Your task to perform on an android device: Open calendar and show me the second week of next month Image 0: 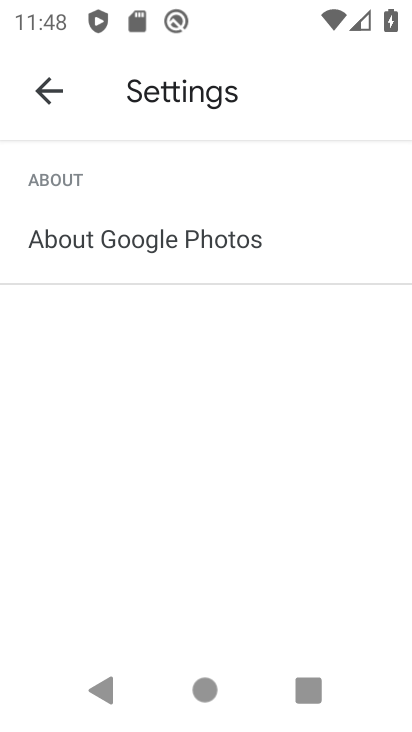
Step 0: press home button
Your task to perform on an android device: Open calendar and show me the second week of next month Image 1: 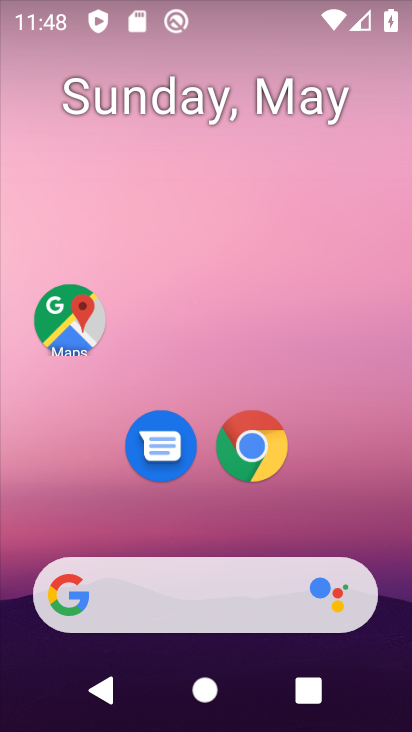
Step 1: drag from (247, 485) to (363, 7)
Your task to perform on an android device: Open calendar and show me the second week of next month Image 2: 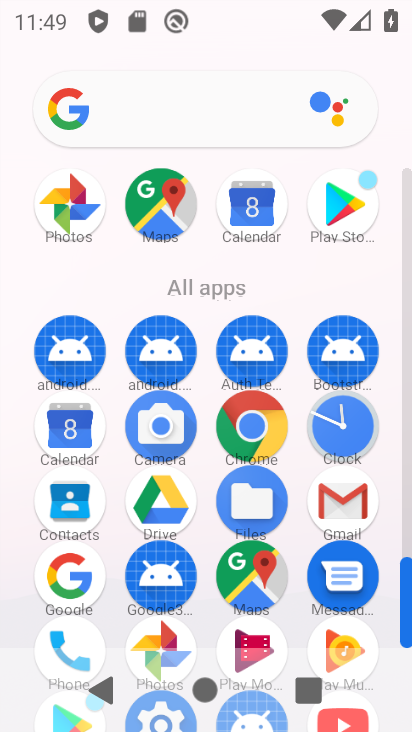
Step 2: click (65, 433)
Your task to perform on an android device: Open calendar and show me the second week of next month Image 3: 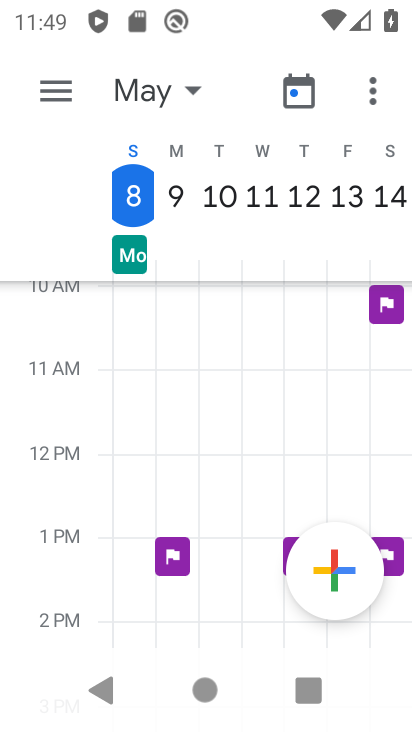
Step 3: click (181, 83)
Your task to perform on an android device: Open calendar and show me the second week of next month Image 4: 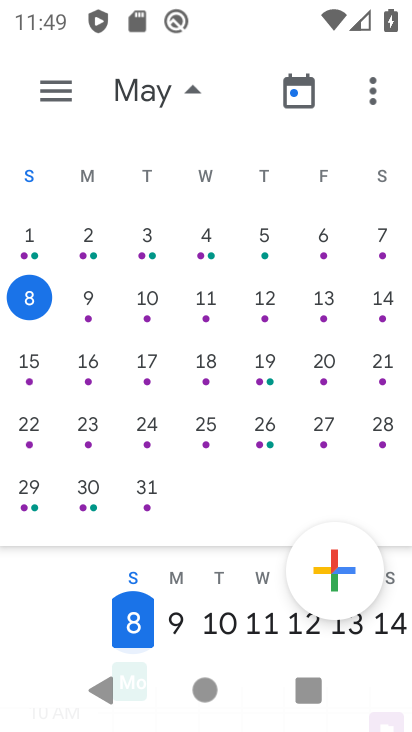
Step 4: drag from (169, 641) to (182, 587)
Your task to perform on an android device: Open calendar and show me the second week of next month Image 5: 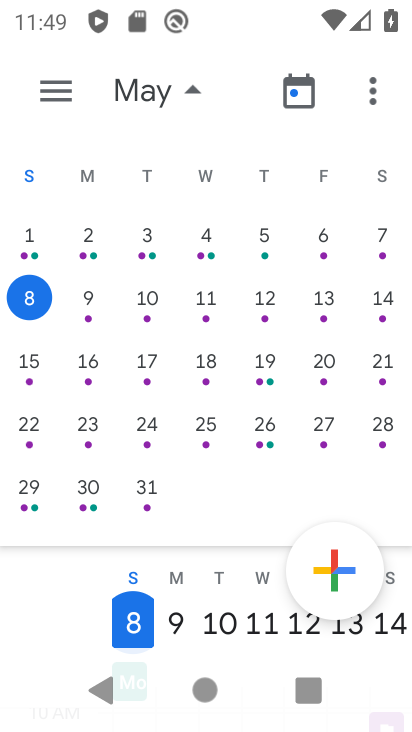
Step 5: drag from (197, 618) to (304, 320)
Your task to perform on an android device: Open calendar and show me the second week of next month Image 6: 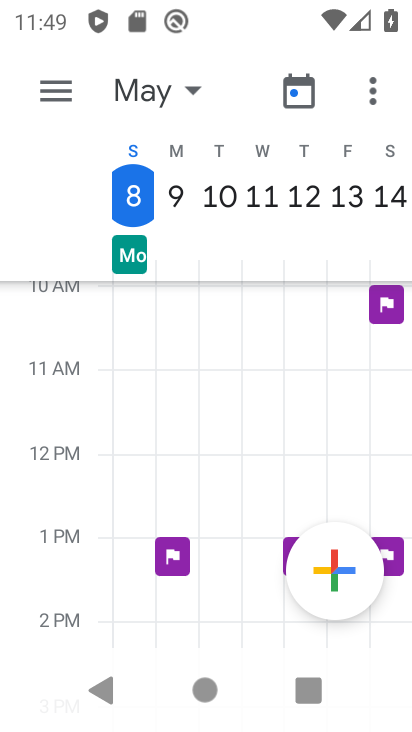
Step 6: click (169, 95)
Your task to perform on an android device: Open calendar and show me the second week of next month Image 7: 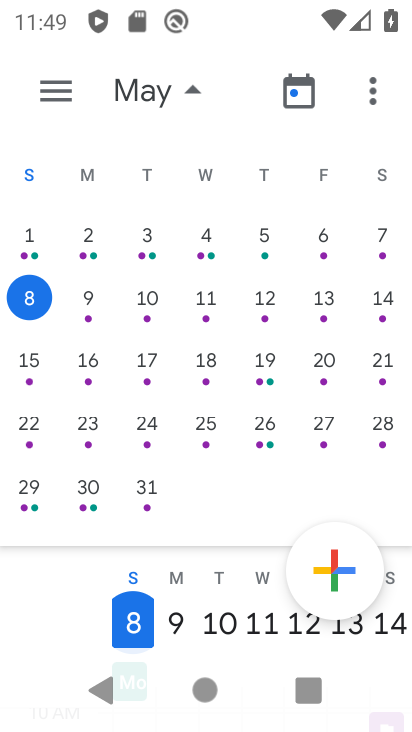
Step 7: click (170, 94)
Your task to perform on an android device: Open calendar and show me the second week of next month Image 8: 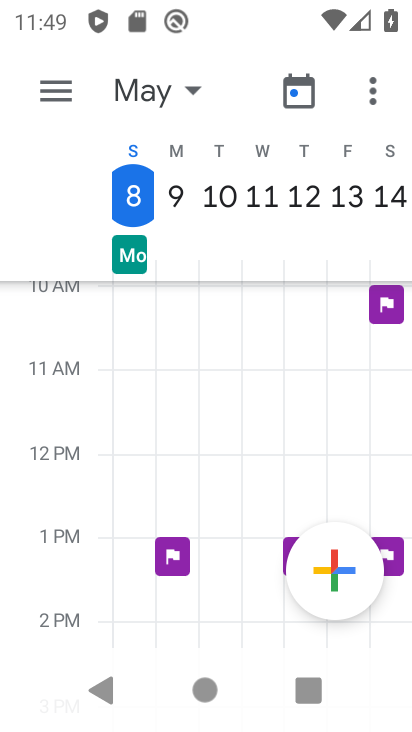
Step 8: click (298, 81)
Your task to perform on an android device: Open calendar and show me the second week of next month Image 9: 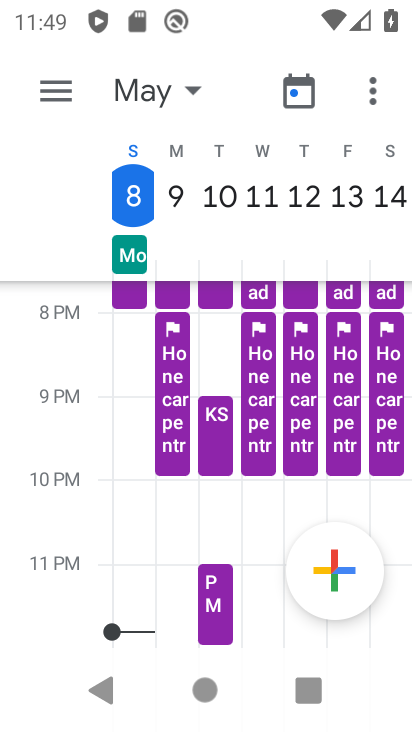
Step 9: click (68, 84)
Your task to perform on an android device: Open calendar and show me the second week of next month Image 10: 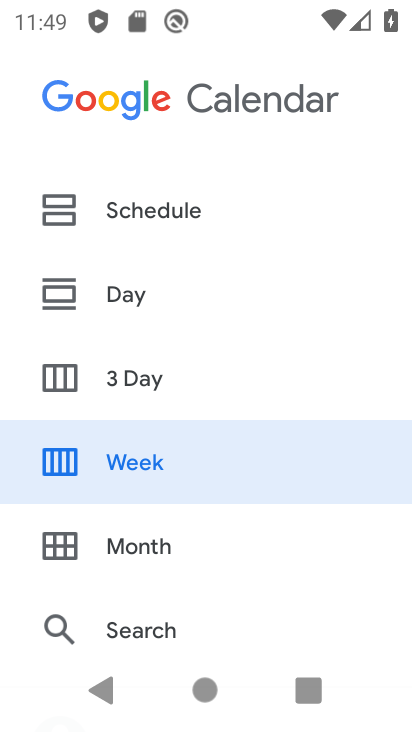
Step 10: click (48, 529)
Your task to perform on an android device: Open calendar and show me the second week of next month Image 11: 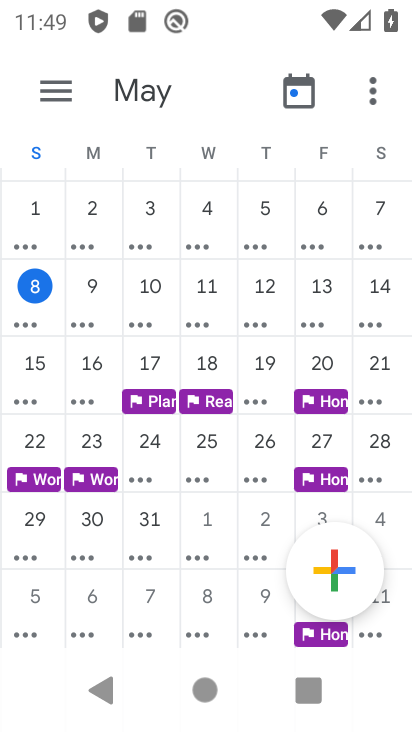
Step 11: drag from (87, 503) to (248, 243)
Your task to perform on an android device: Open calendar and show me the second week of next month Image 12: 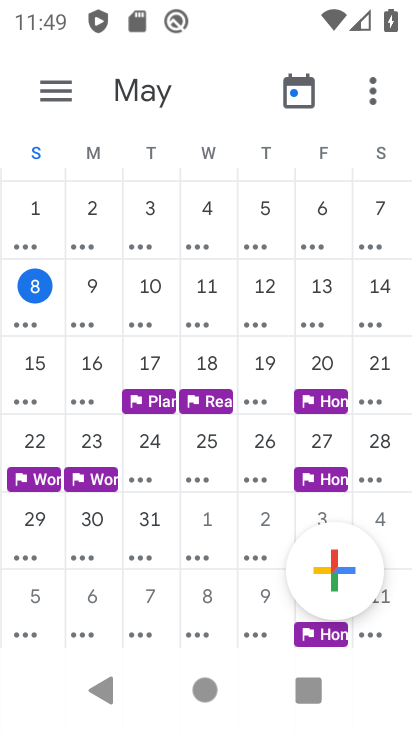
Step 12: drag from (313, 320) to (5, 299)
Your task to perform on an android device: Open calendar and show me the second week of next month Image 13: 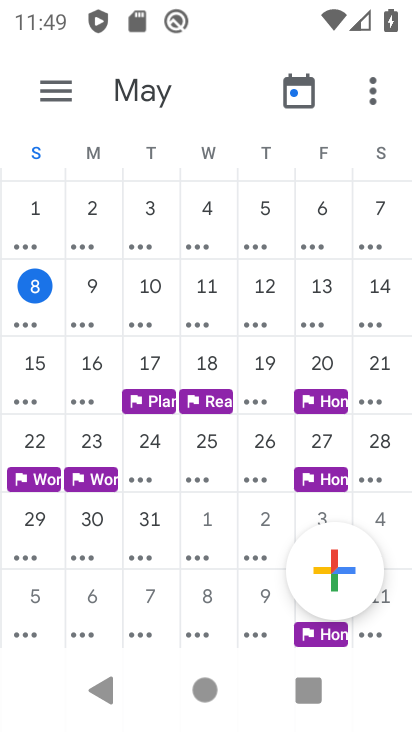
Step 13: drag from (361, 212) to (6, 214)
Your task to perform on an android device: Open calendar and show me the second week of next month Image 14: 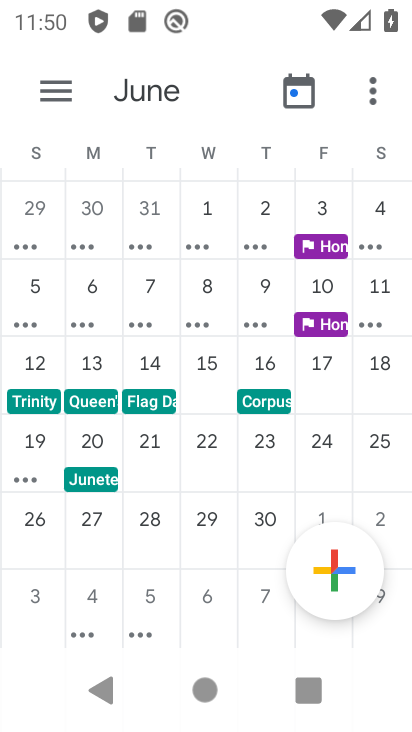
Step 14: click (42, 90)
Your task to perform on an android device: Open calendar and show me the second week of next month Image 15: 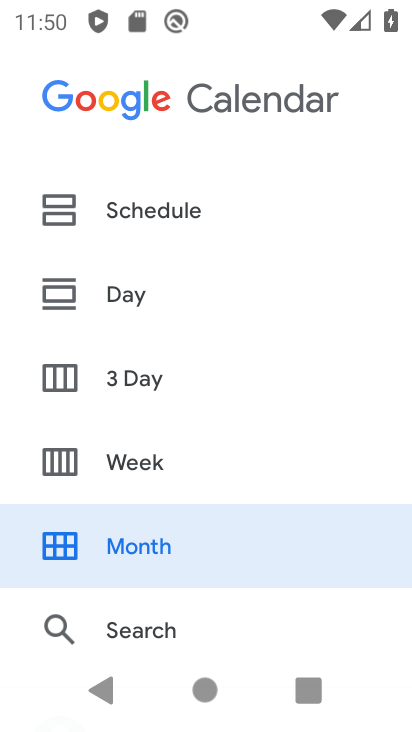
Step 15: click (87, 459)
Your task to perform on an android device: Open calendar and show me the second week of next month Image 16: 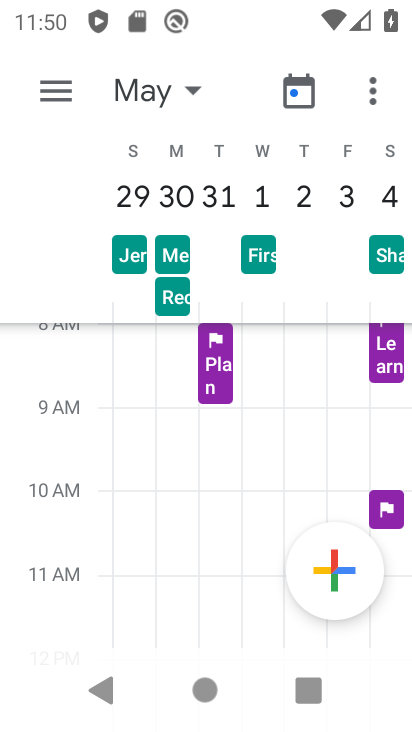
Step 16: drag from (318, 272) to (119, 275)
Your task to perform on an android device: Open calendar and show me the second week of next month Image 17: 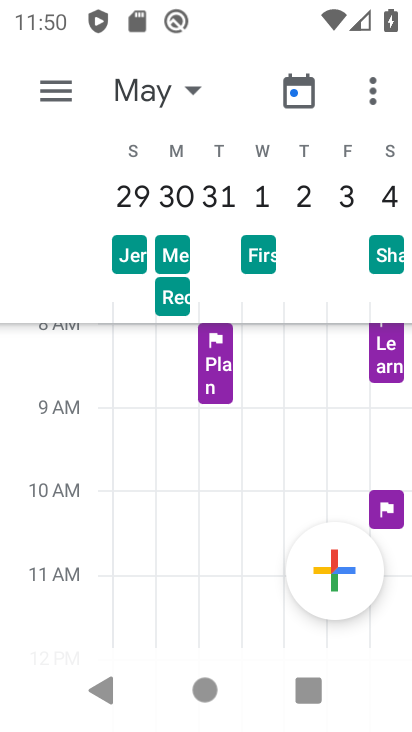
Step 17: click (198, 79)
Your task to perform on an android device: Open calendar and show me the second week of next month Image 18: 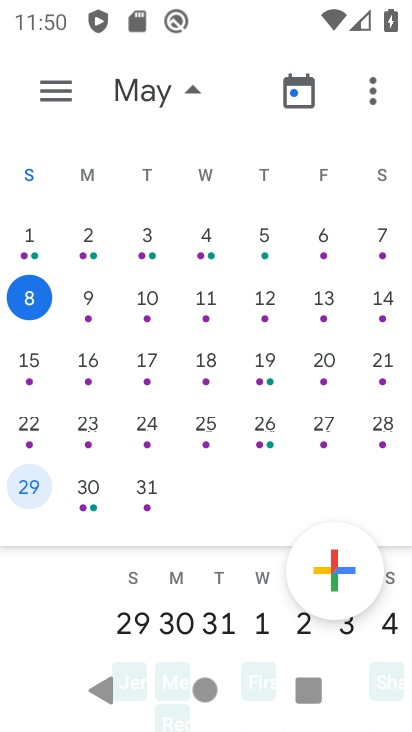
Step 18: click (187, 90)
Your task to perform on an android device: Open calendar and show me the second week of next month Image 19: 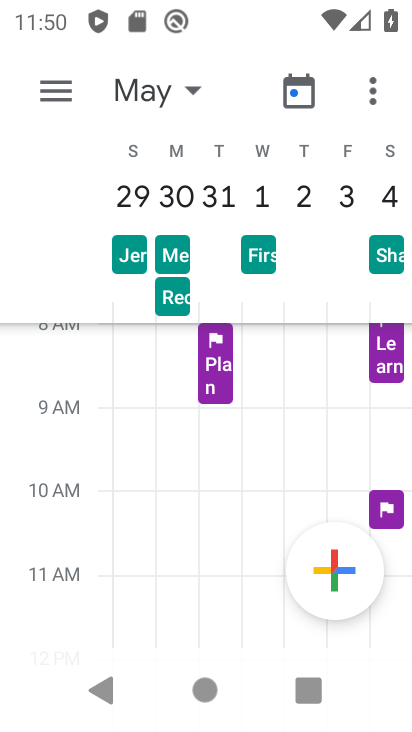
Step 19: drag from (344, 168) to (40, 235)
Your task to perform on an android device: Open calendar and show me the second week of next month Image 20: 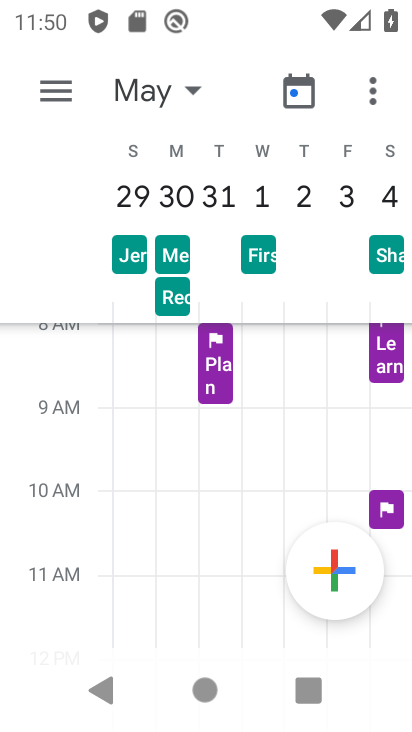
Step 20: drag from (337, 163) to (43, 211)
Your task to perform on an android device: Open calendar and show me the second week of next month Image 21: 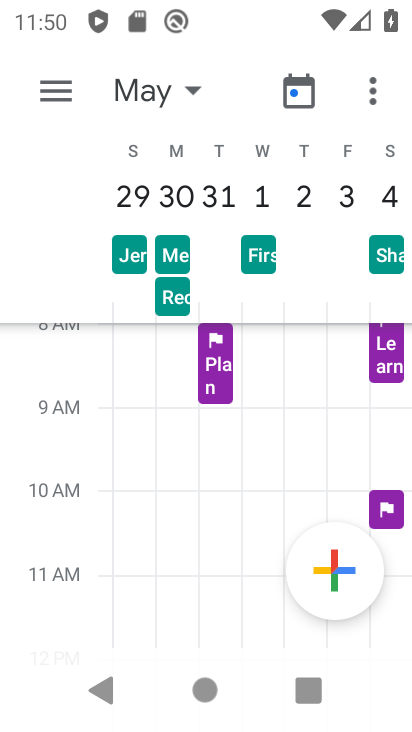
Step 21: drag from (354, 150) to (105, 167)
Your task to perform on an android device: Open calendar and show me the second week of next month Image 22: 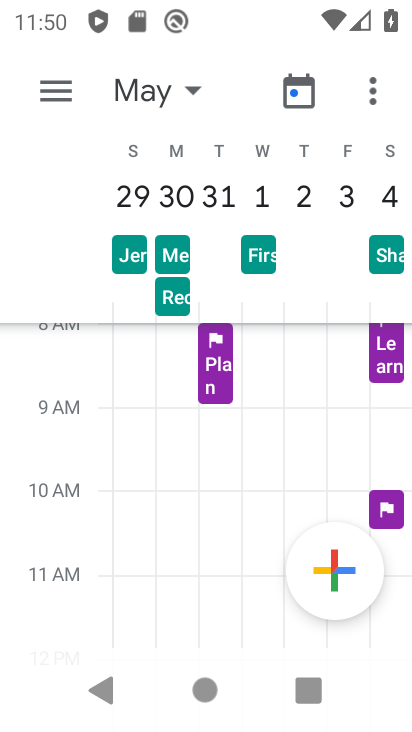
Step 22: drag from (381, 215) to (59, 233)
Your task to perform on an android device: Open calendar and show me the second week of next month Image 23: 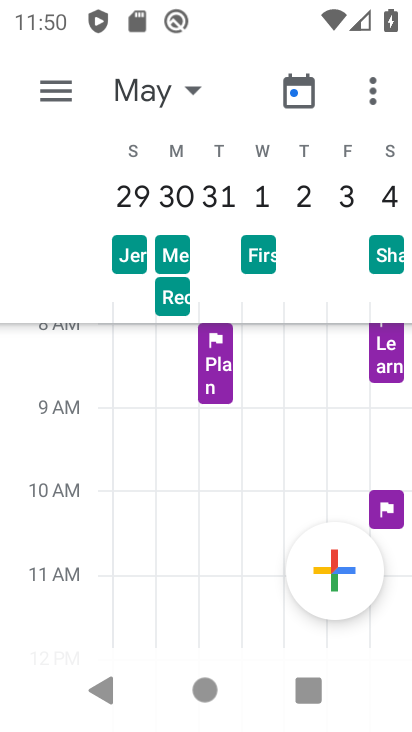
Step 23: click (132, 92)
Your task to perform on an android device: Open calendar and show me the second week of next month Image 24: 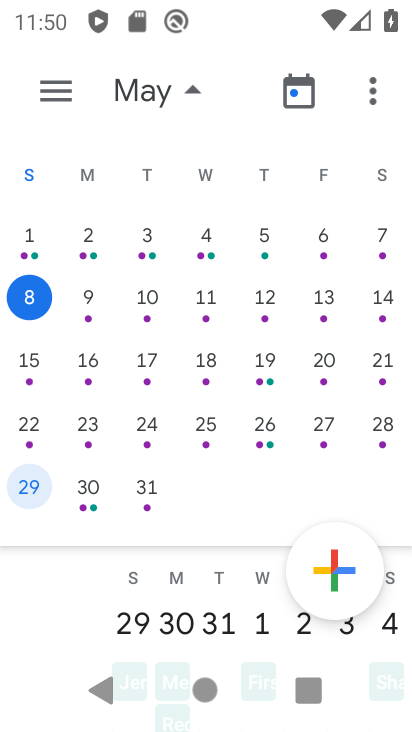
Step 24: drag from (374, 302) to (20, 393)
Your task to perform on an android device: Open calendar and show me the second week of next month Image 25: 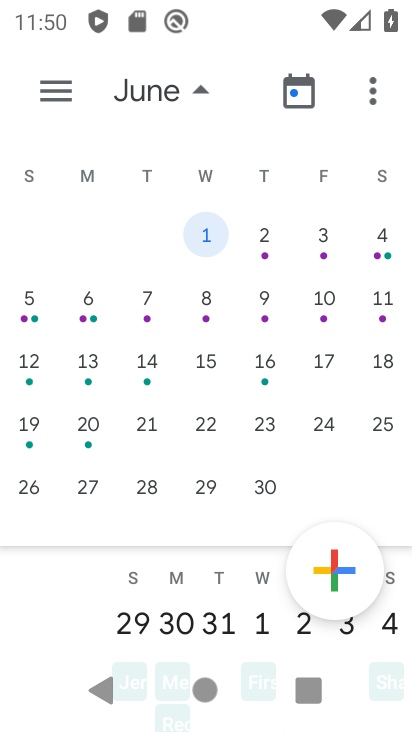
Step 25: click (205, 299)
Your task to perform on an android device: Open calendar and show me the second week of next month Image 26: 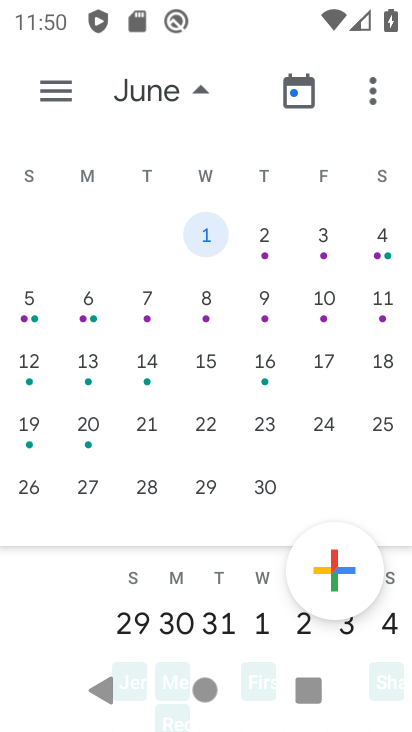
Step 26: click (205, 299)
Your task to perform on an android device: Open calendar and show me the second week of next month Image 27: 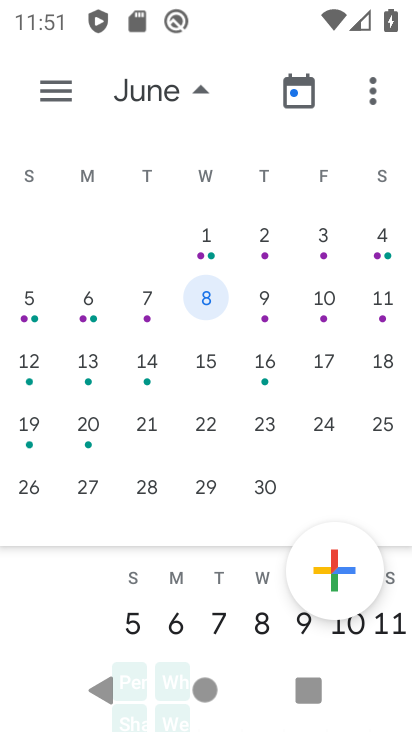
Step 27: task complete